Your task to perform on an android device: clear history in the chrome app Image 0: 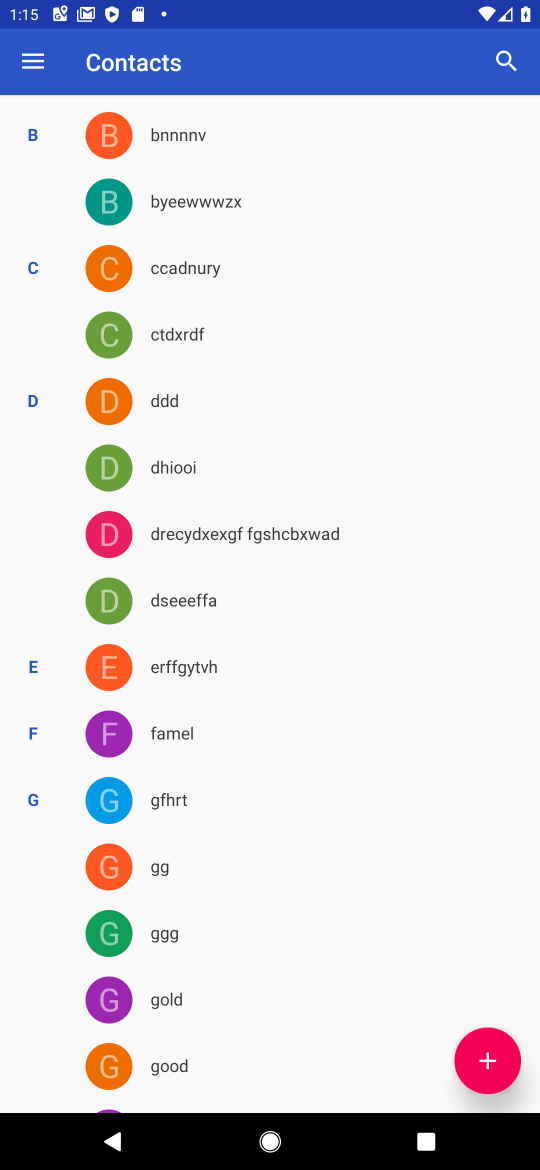
Step 0: press home button
Your task to perform on an android device: clear history in the chrome app Image 1: 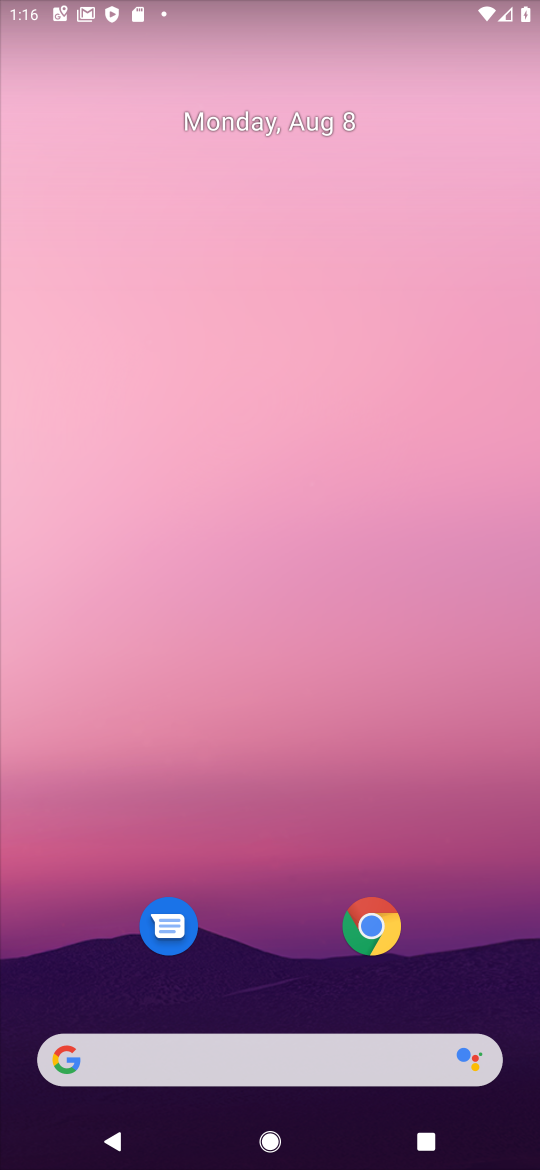
Step 1: drag from (316, 591) to (325, 77)
Your task to perform on an android device: clear history in the chrome app Image 2: 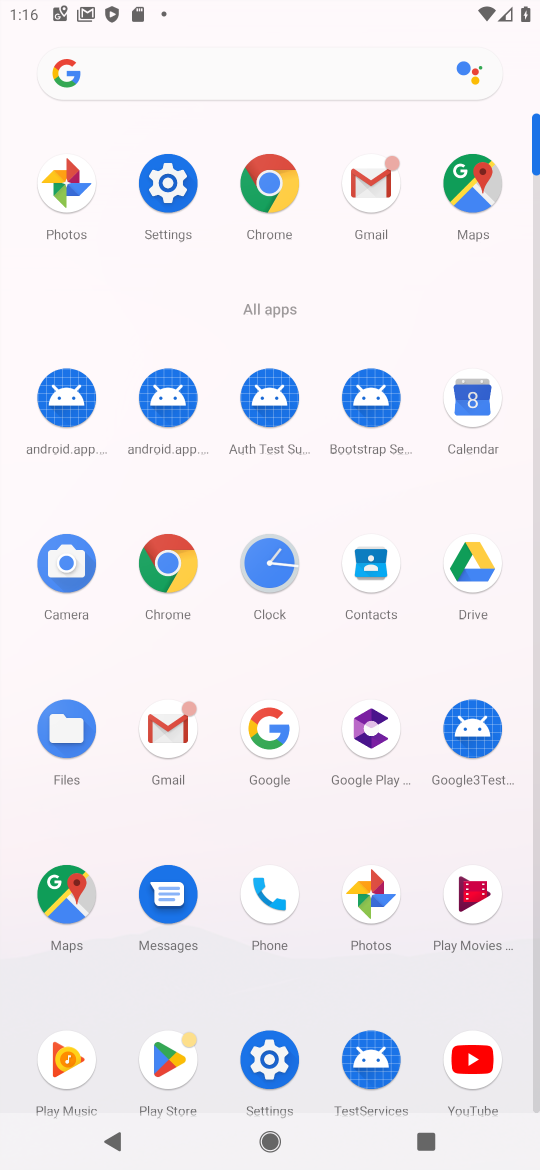
Step 2: click (273, 182)
Your task to perform on an android device: clear history in the chrome app Image 3: 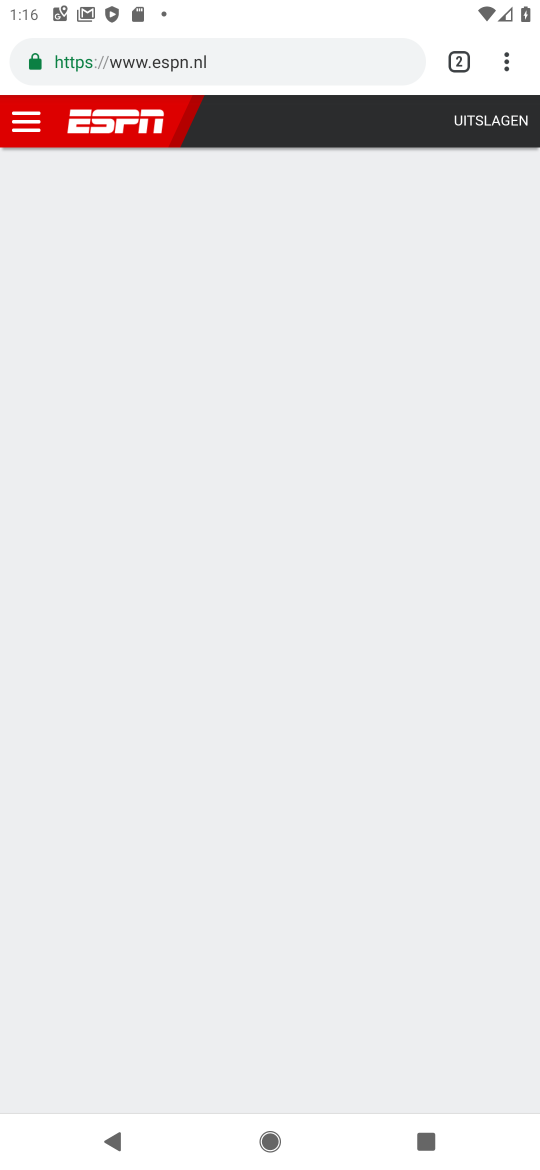
Step 3: click (517, 56)
Your task to perform on an android device: clear history in the chrome app Image 4: 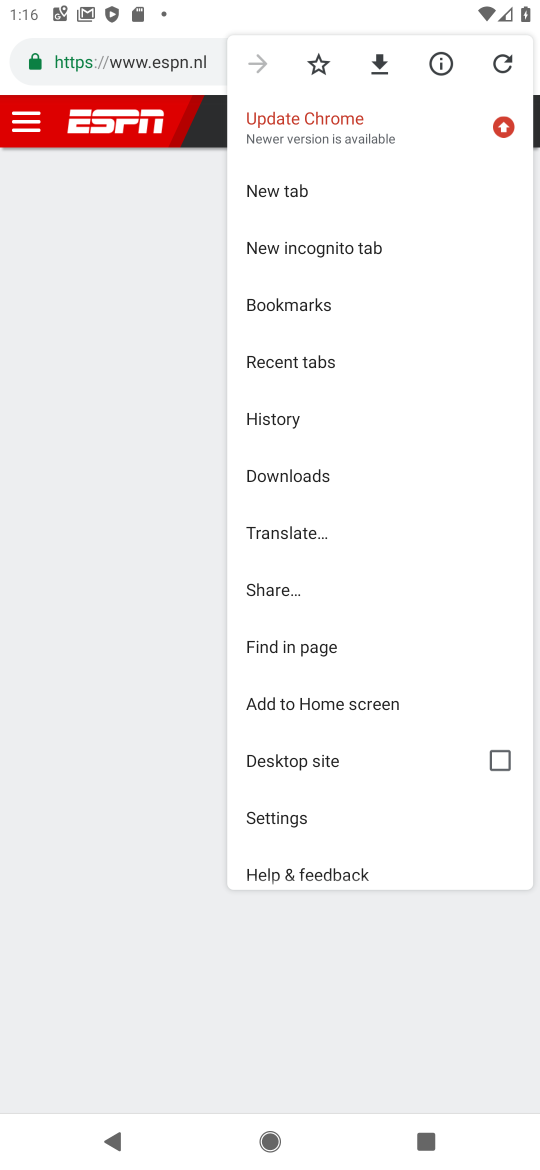
Step 4: click (314, 414)
Your task to perform on an android device: clear history in the chrome app Image 5: 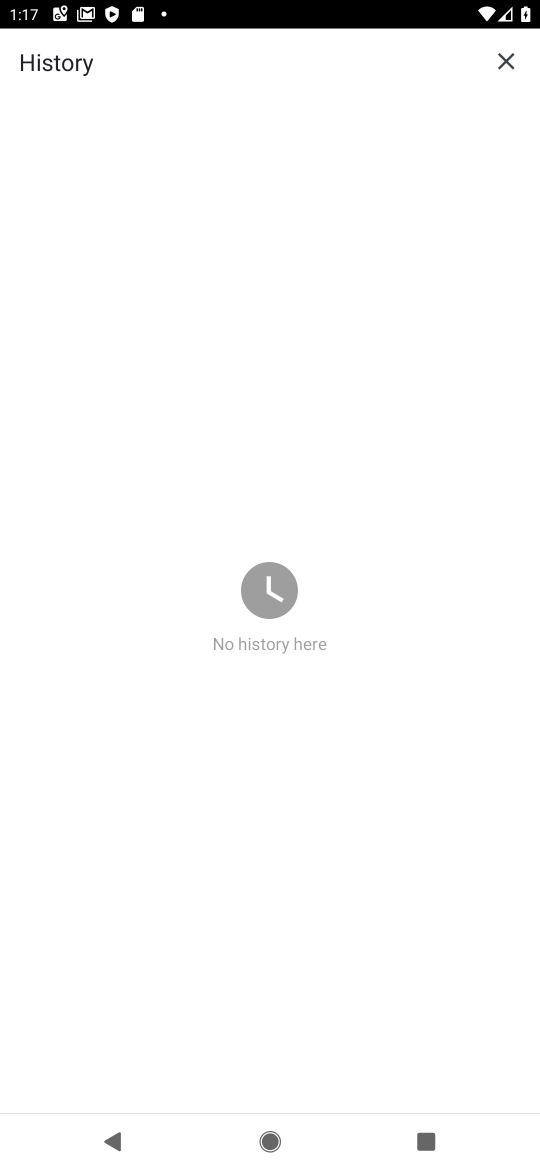
Step 5: task complete